Your task to perform on an android device: What's the weather? Image 0: 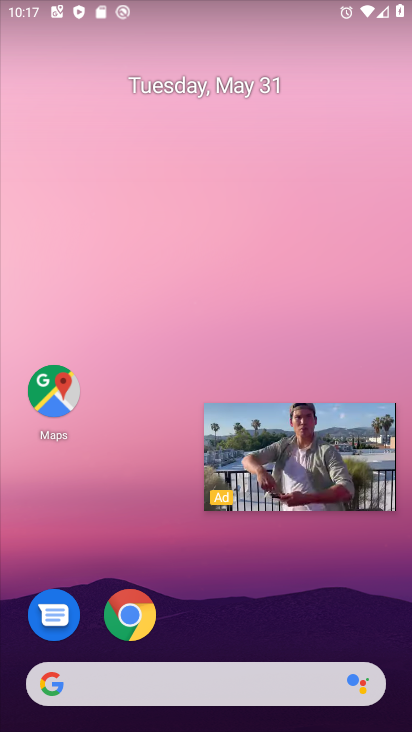
Step 0: click (371, 424)
Your task to perform on an android device: What's the weather? Image 1: 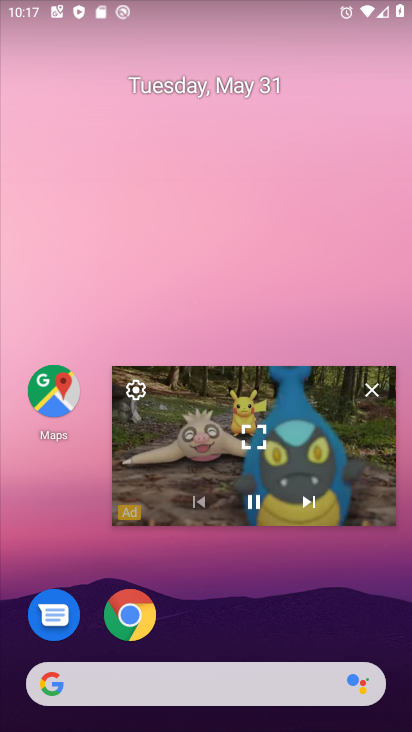
Step 1: click (368, 382)
Your task to perform on an android device: What's the weather? Image 2: 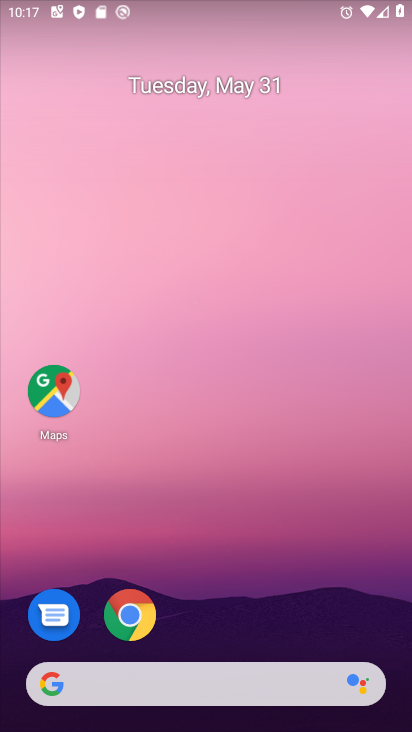
Step 2: drag from (323, 597) to (306, 62)
Your task to perform on an android device: What's the weather? Image 3: 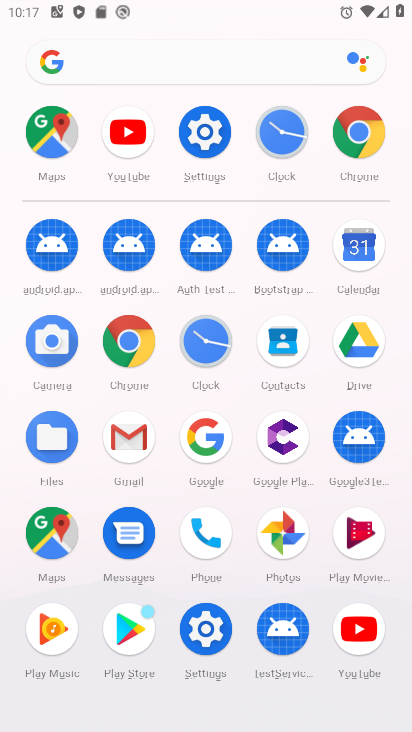
Step 3: click (47, 53)
Your task to perform on an android device: What's the weather? Image 4: 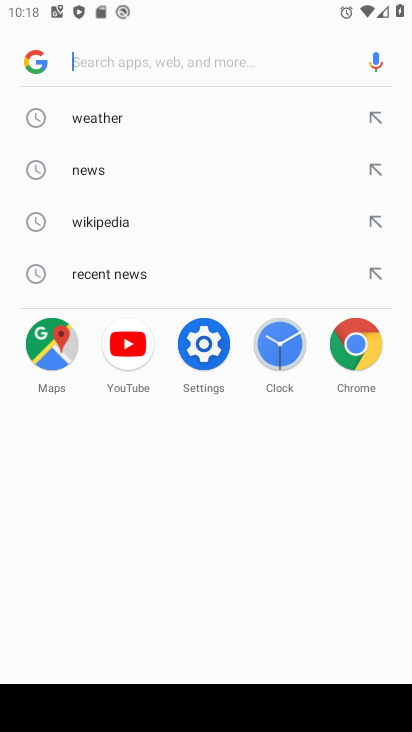
Step 4: click (29, 67)
Your task to perform on an android device: What's the weather? Image 5: 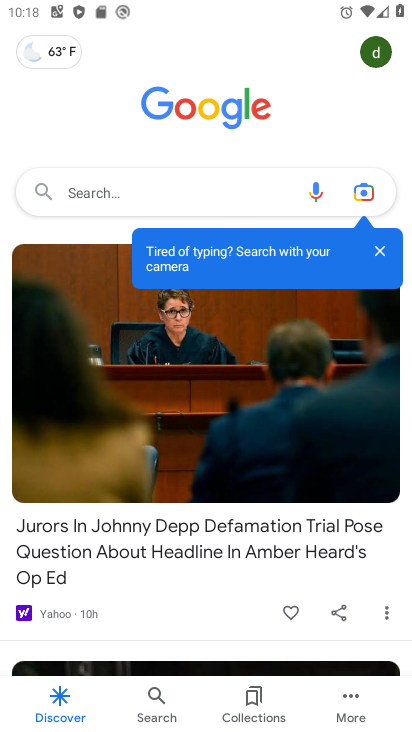
Step 5: drag from (260, 532) to (283, 267)
Your task to perform on an android device: What's the weather? Image 6: 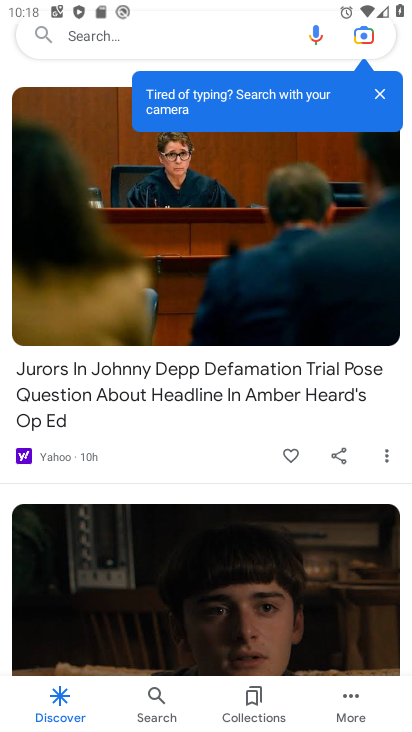
Step 6: drag from (263, 416) to (252, 693)
Your task to perform on an android device: What's the weather? Image 7: 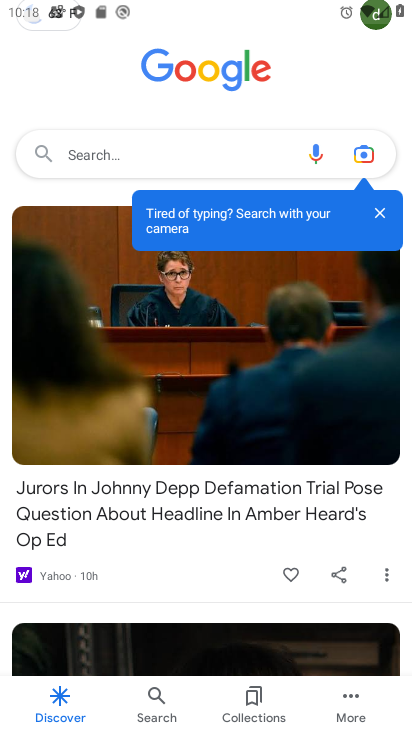
Step 7: drag from (393, 585) to (342, 278)
Your task to perform on an android device: What's the weather? Image 8: 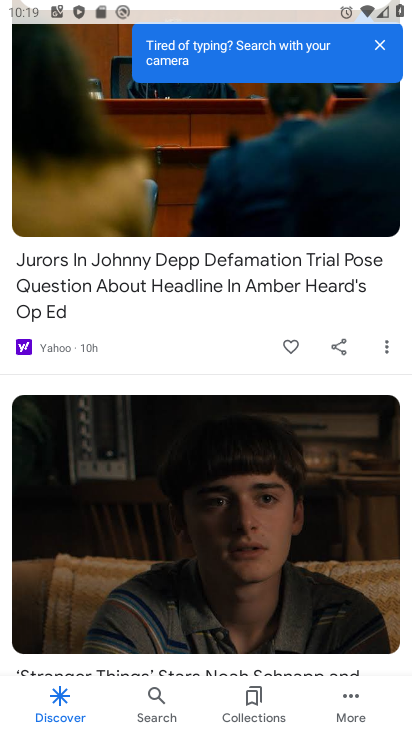
Step 8: drag from (244, 548) to (289, 184)
Your task to perform on an android device: What's the weather? Image 9: 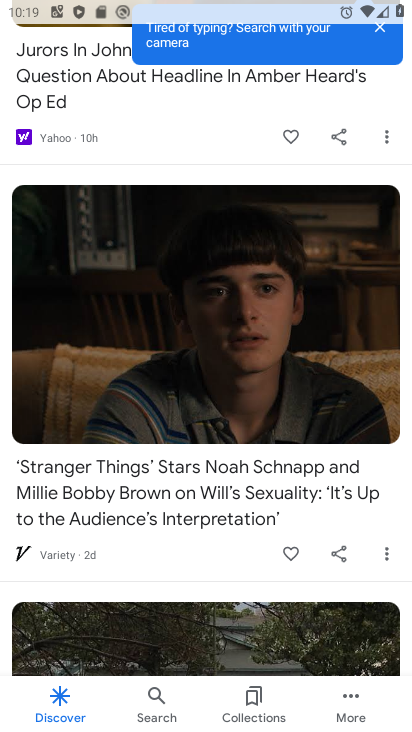
Step 9: drag from (289, 183) to (258, 674)
Your task to perform on an android device: What's the weather? Image 10: 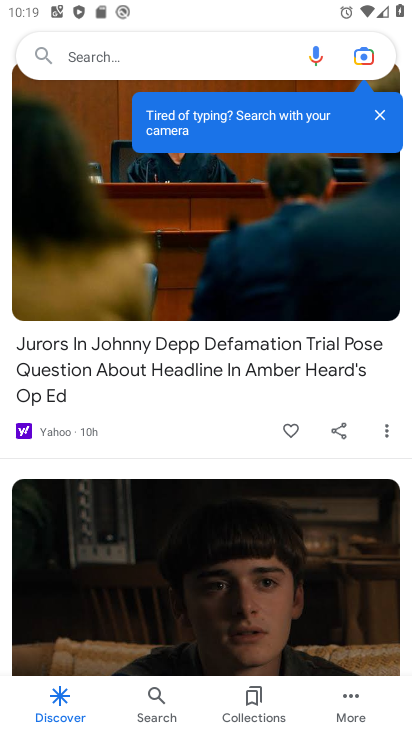
Step 10: drag from (267, 268) to (285, 657)
Your task to perform on an android device: What's the weather? Image 11: 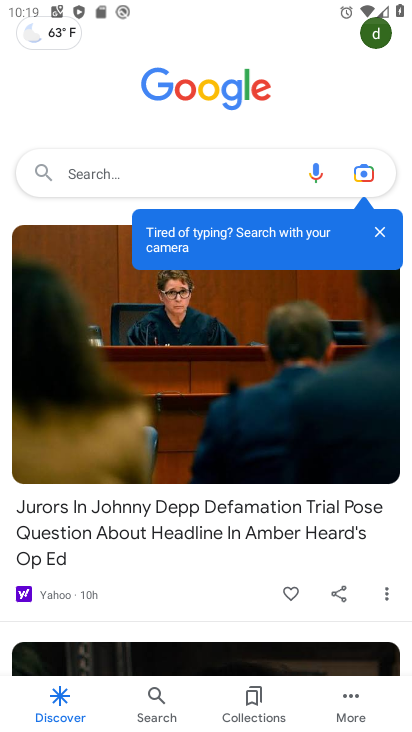
Step 11: drag from (291, 315) to (289, 657)
Your task to perform on an android device: What's the weather? Image 12: 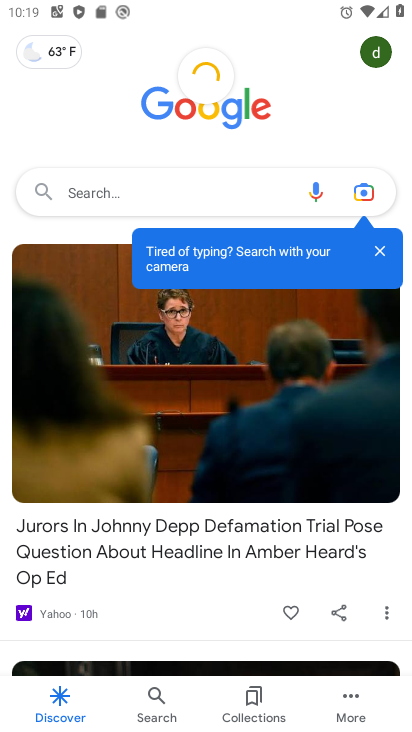
Step 12: click (41, 53)
Your task to perform on an android device: What's the weather? Image 13: 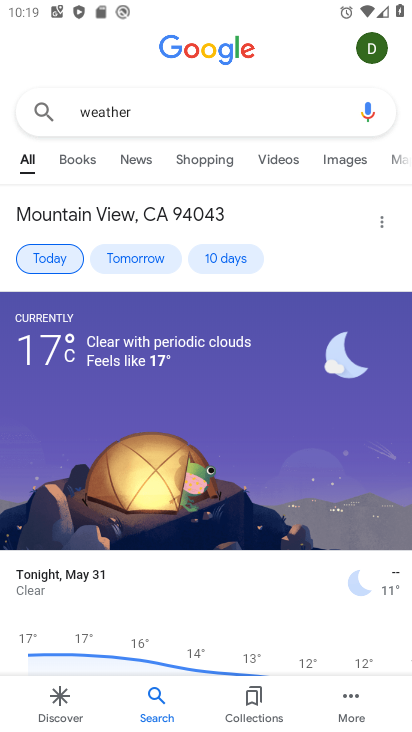
Step 13: task complete